Your task to perform on an android device: star an email in the gmail app Image 0: 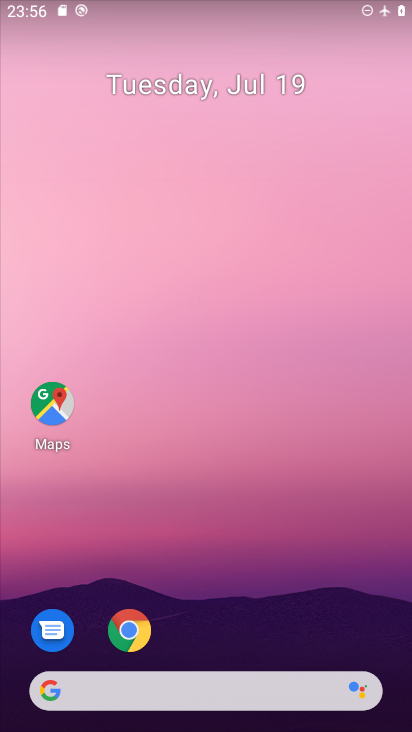
Step 0: drag from (184, 620) to (163, 215)
Your task to perform on an android device: star an email in the gmail app Image 1: 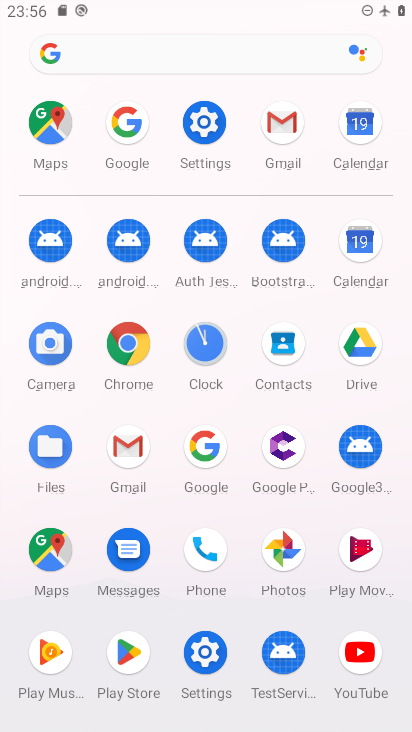
Step 1: click (283, 124)
Your task to perform on an android device: star an email in the gmail app Image 2: 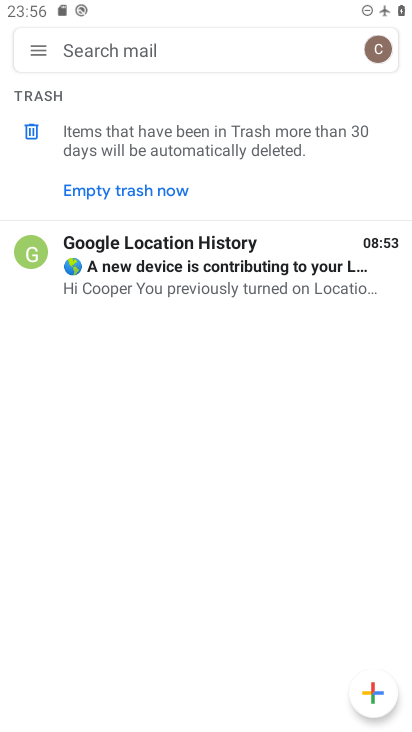
Step 2: click (36, 60)
Your task to perform on an android device: star an email in the gmail app Image 3: 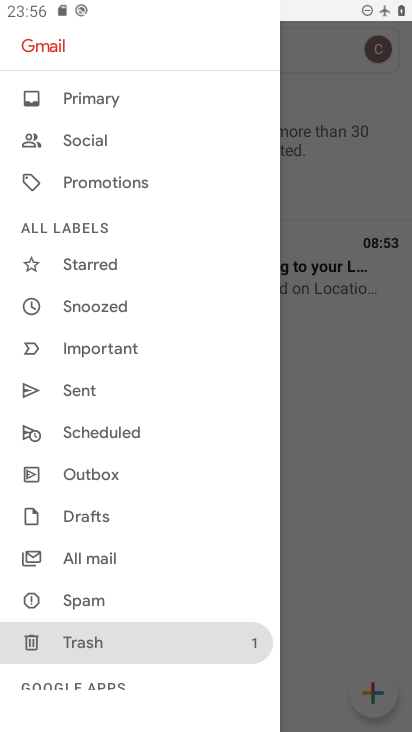
Step 3: click (114, 558)
Your task to perform on an android device: star an email in the gmail app Image 4: 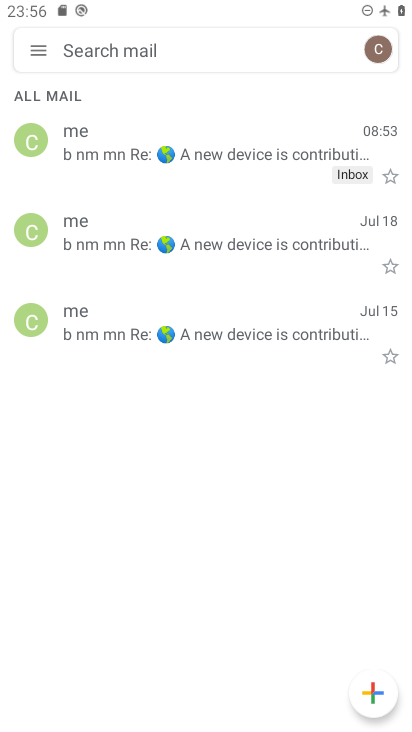
Step 4: click (388, 179)
Your task to perform on an android device: star an email in the gmail app Image 5: 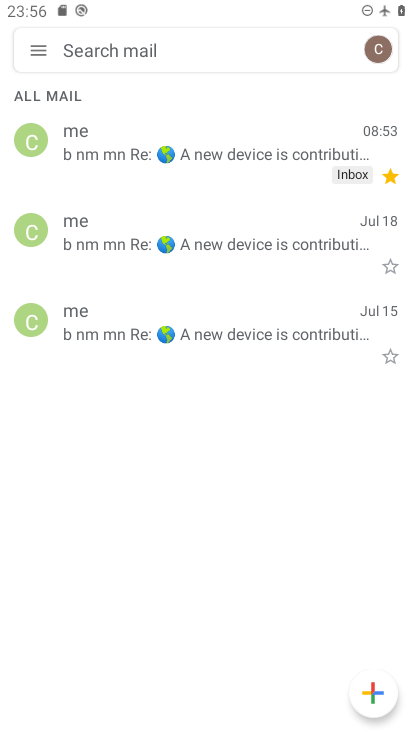
Step 5: task complete